Your task to perform on an android device: Open eBay Image 0: 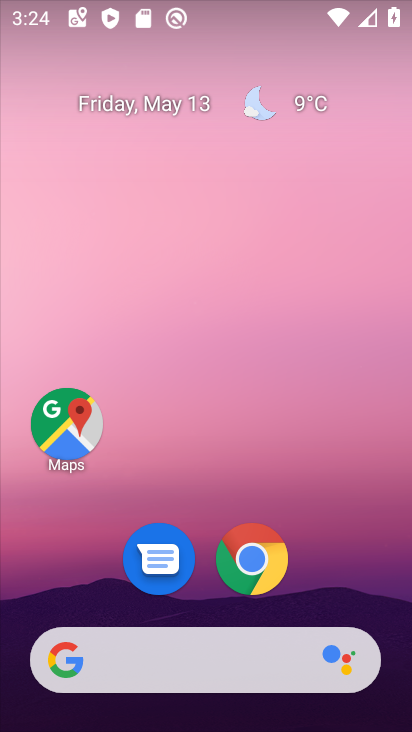
Step 0: click (257, 543)
Your task to perform on an android device: Open eBay Image 1: 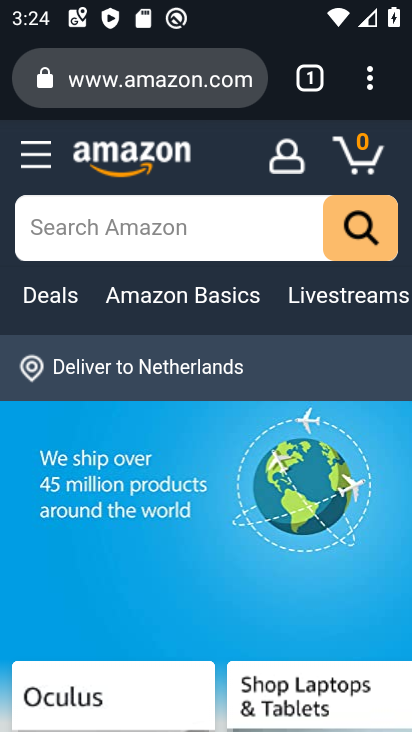
Step 1: click (168, 91)
Your task to perform on an android device: Open eBay Image 2: 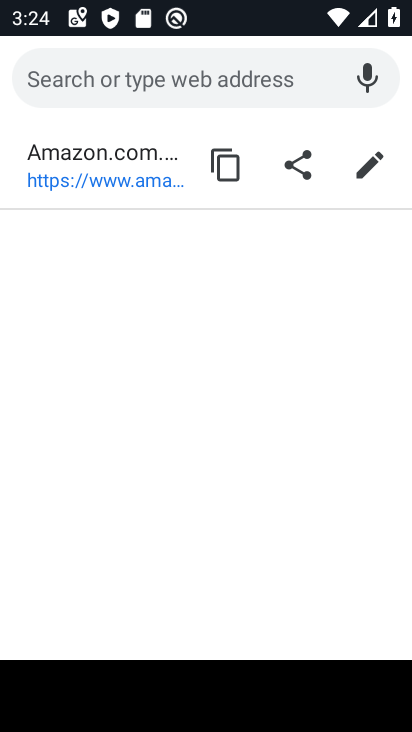
Step 2: type "ebay"
Your task to perform on an android device: Open eBay Image 3: 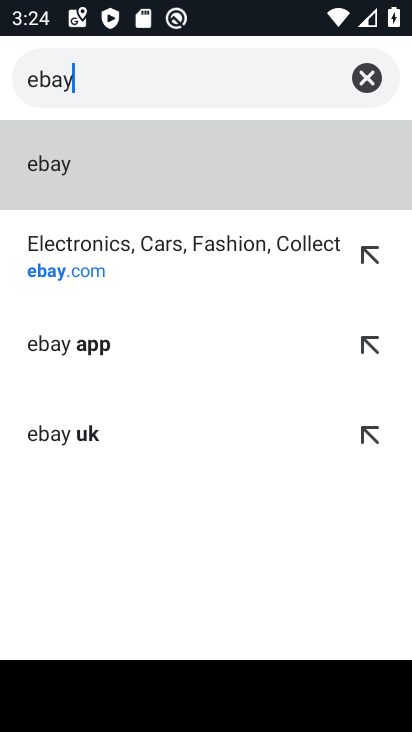
Step 3: click (48, 176)
Your task to perform on an android device: Open eBay Image 4: 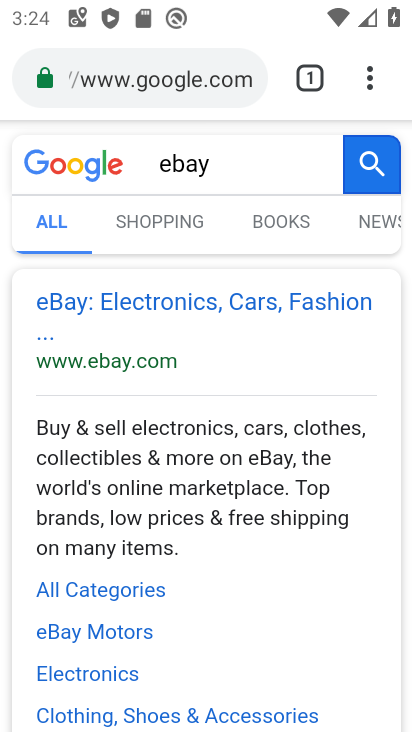
Step 4: click (61, 292)
Your task to perform on an android device: Open eBay Image 5: 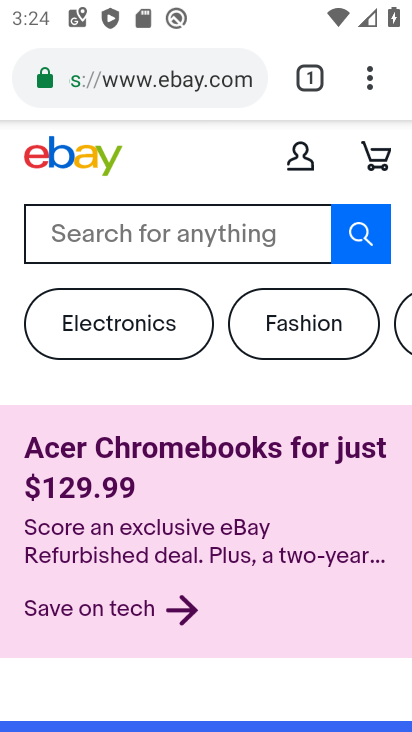
Step 5: task complete